Your task to perform on an android device: Open Google Maps Image 0: 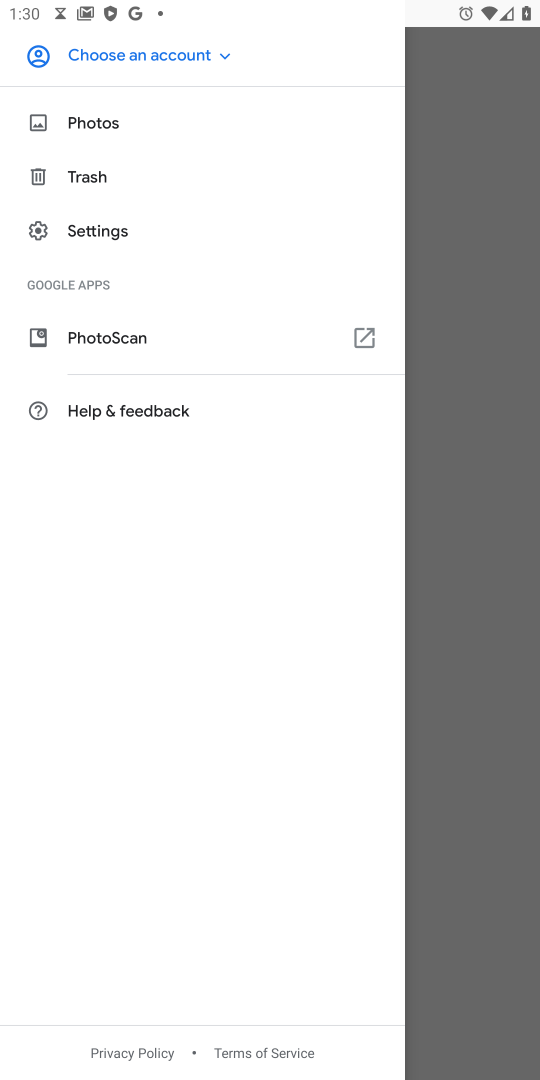
Step 0: press home button
Your task to perform on an android device: Open Google Maps Image 1: 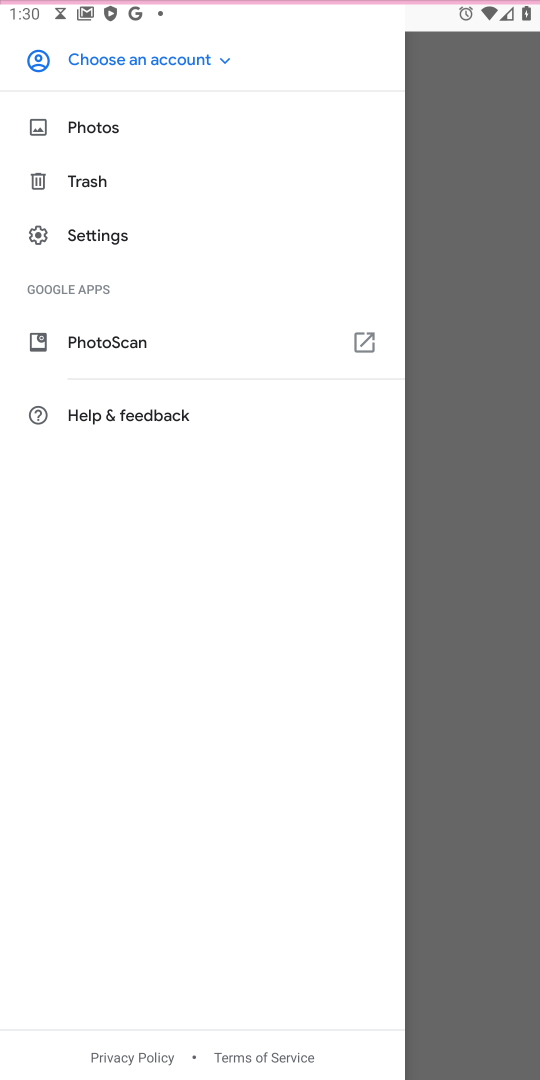
Step 1: press home button
Your task to perform on an android device: Open Google Maps Image 2: 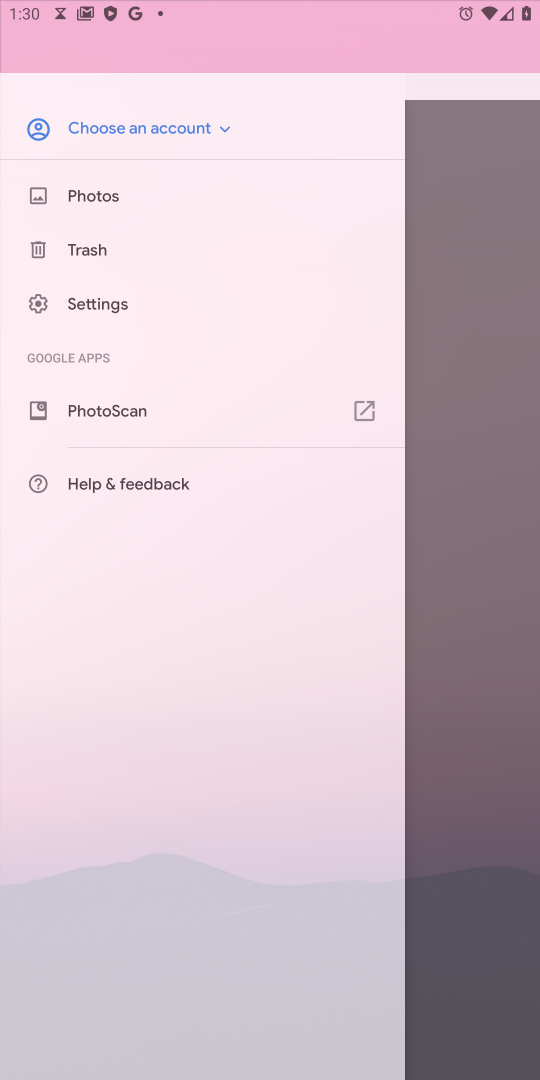
Step 2: drag from (331, 585) to (216, 27)
Your task to perform on an android device: Open Google Maps Image 3: 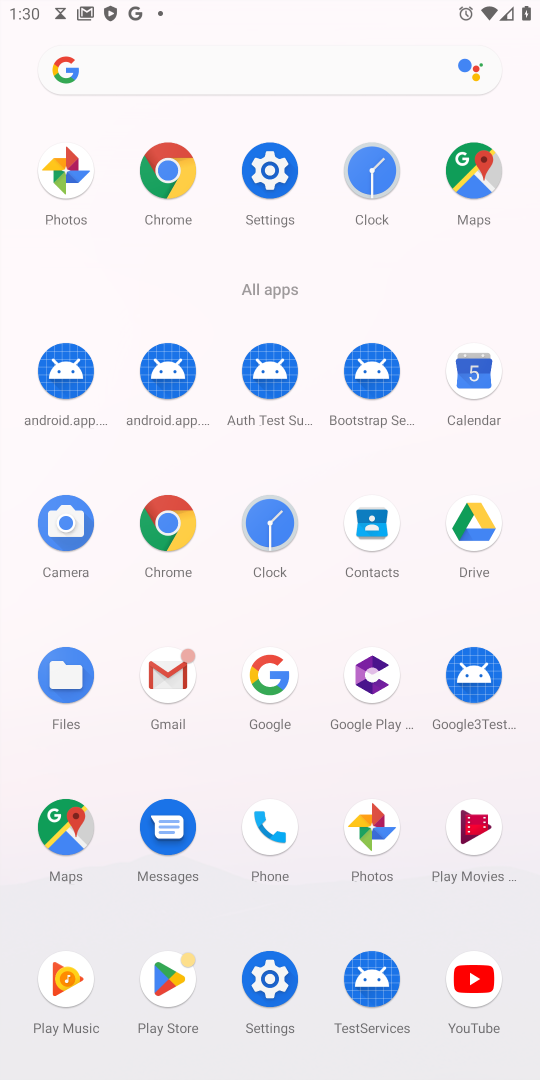
Step 3: click (84, 798)
Your task to perform on an android device: Open Google Maps Image 4: 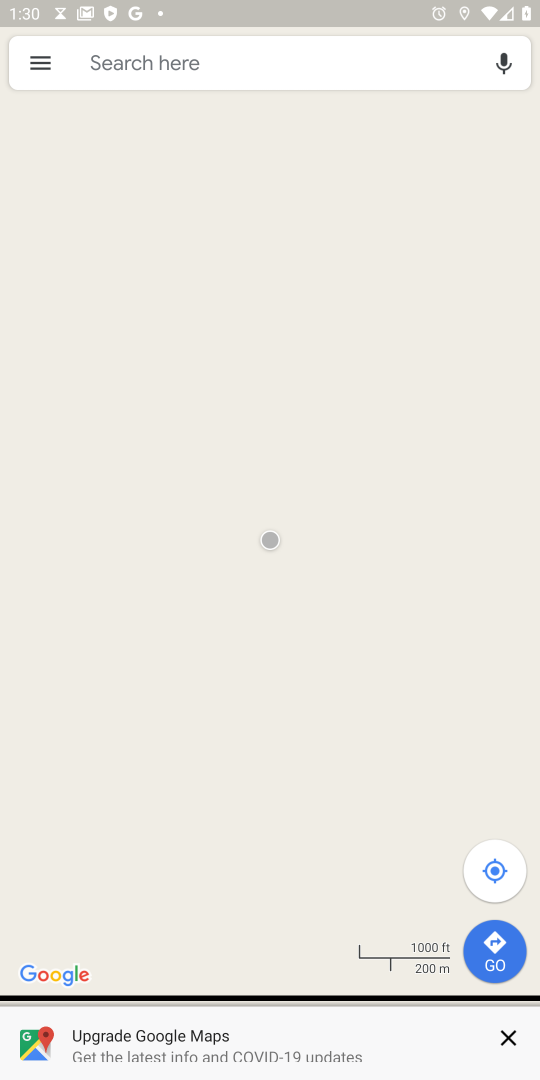
Step 4: task complete